Your task to perform on an android device: Go to accessibility settings Image 0: 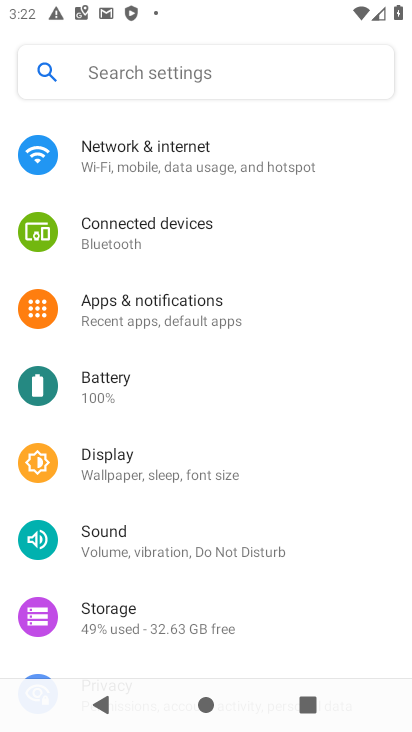
Step 0: press home button
Your task to perform on an android device: Go to accessibility settings Image 1: 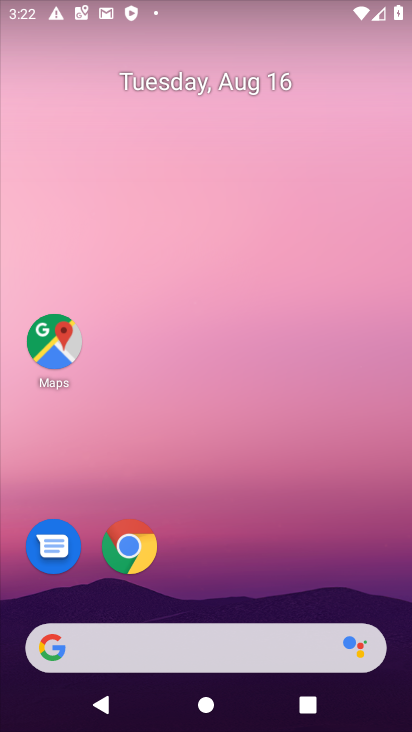
Step 1: drag from (340, 579) to (358, 130)
Your task to perform on an android device: Go to accessibility settings Image 2: 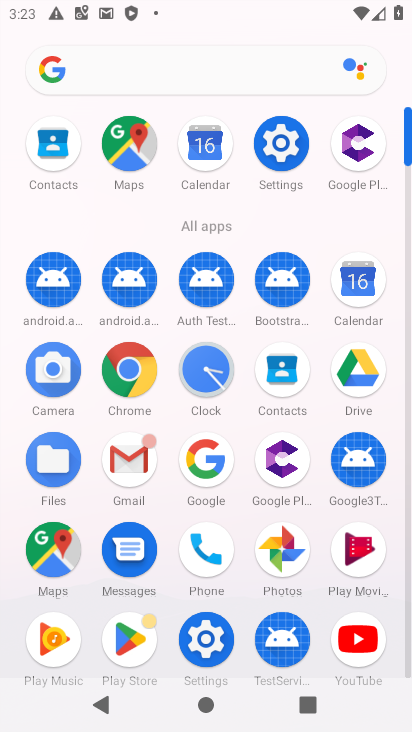
Step 2: click (287, 150)
Your task to perform on an android device: Go to accessibility settings Image 3: 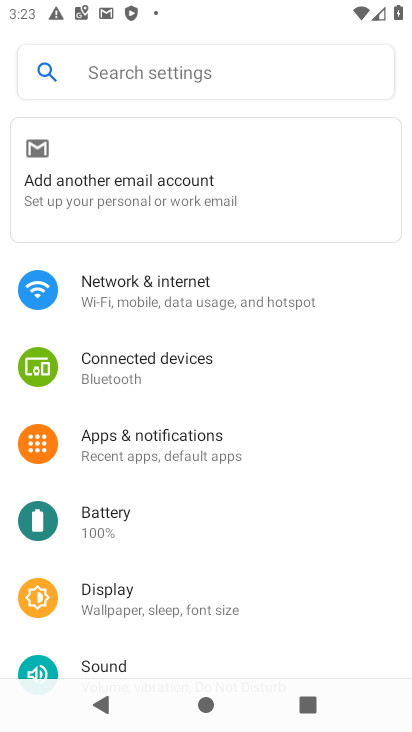
Step 3: drag from (325, 512) to (323, 383)
Your task to perform on an android device: Go to accessibility settings Image 4: 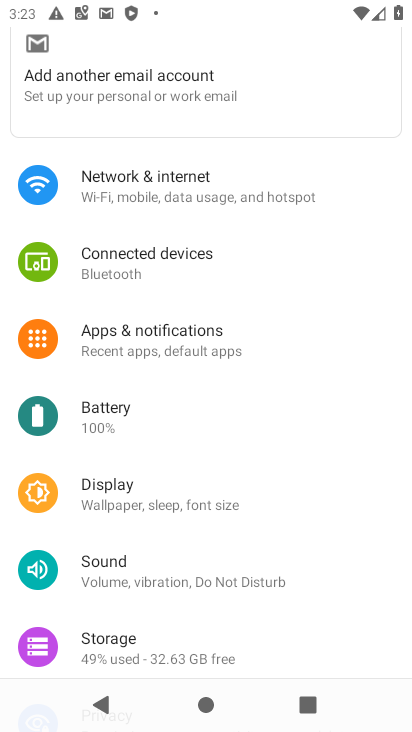
Step 4: drag from (315, 493) to (323, 345)
Your task to perform on an android device: Go to accessibility settings Image 5: 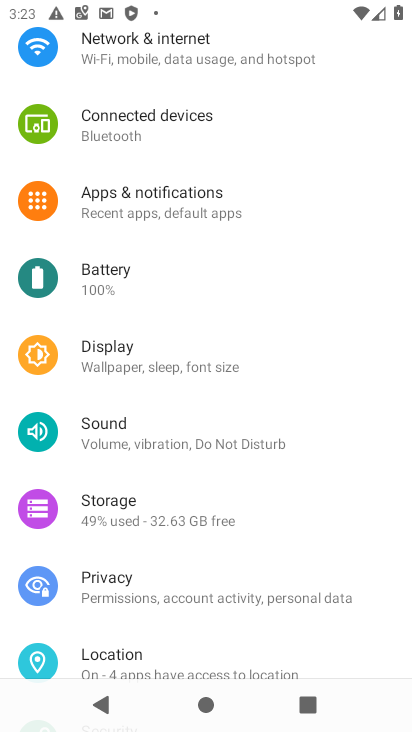
Step 5: drag from (316, 502) to (344, 376)
Your task to perform on an android device: Go to accessibility settings Image 6: 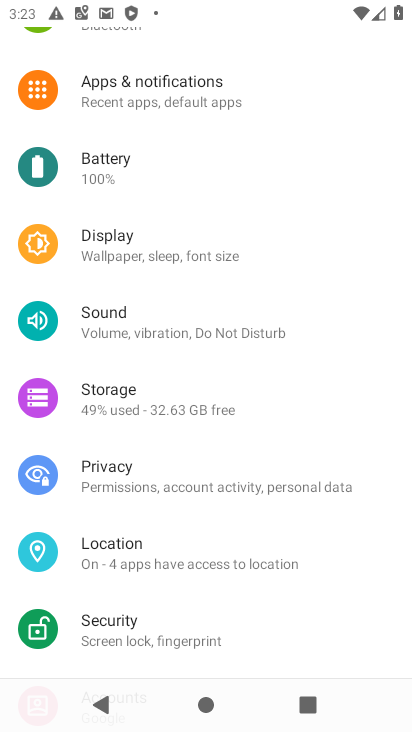
Step 6: drag from (324, 552) to (337, 403)
Your task to perform on an android device: Go to accessibility settings Image 7: 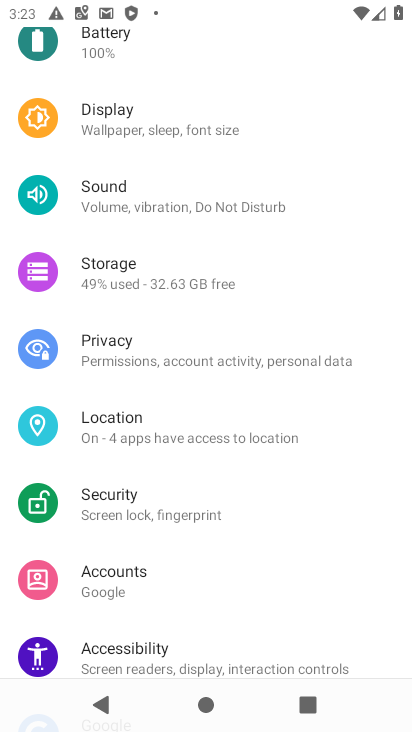
Step 7: drag from (331, 565) to (338, 424)
Your task to perform on an android device: Go to accessibility settings Image 8: 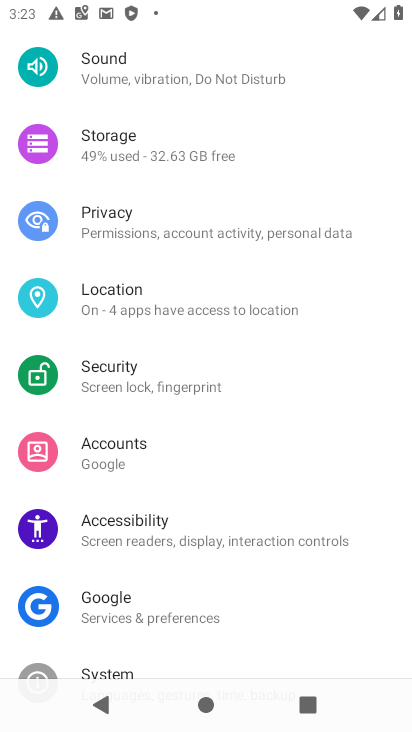
Step 8: drag from (347, 596) to (350, 426)
Your task to perform on an android device: Go to accessibility settings Image 9: 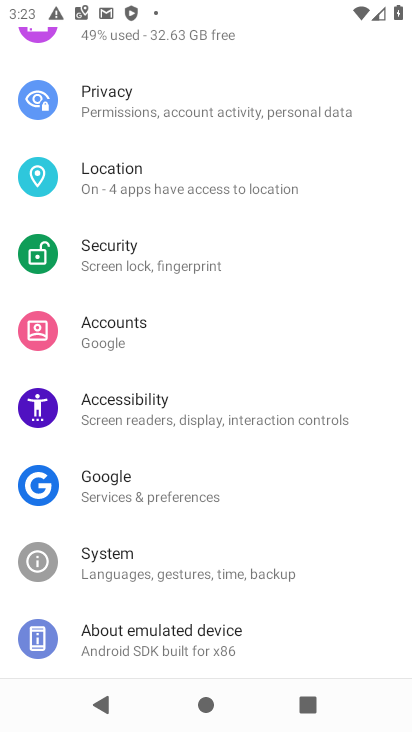
Step 9: click (289, 414)
Your task to perform on an android device: Go to accessibility settings Image 10: 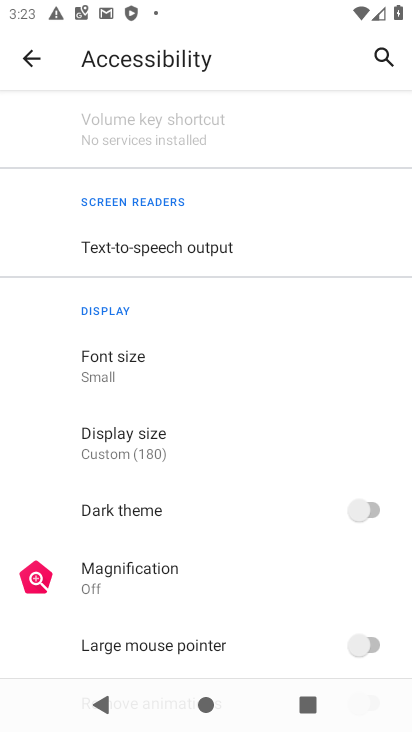
Step 10: task complete